Your task to perform on an android device: check battery use Image 0: 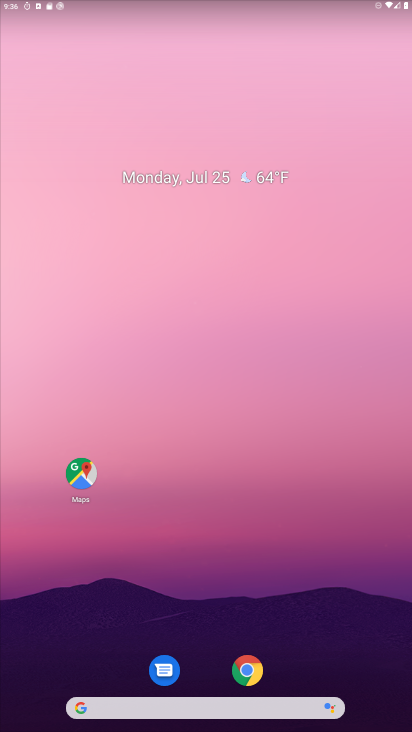
Step 0: drag from (340, 655) to (248, 42)
Your task to perform on an android device: check battery use Image 1: 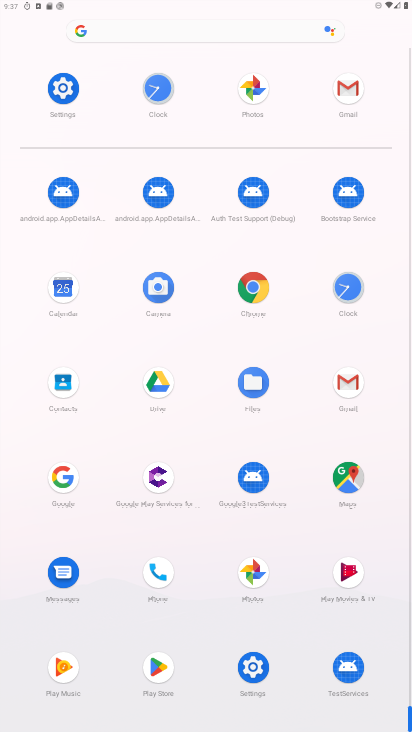
Step 1: click (264, 672)
Your task to perform on an android device: check battery use Image 2: 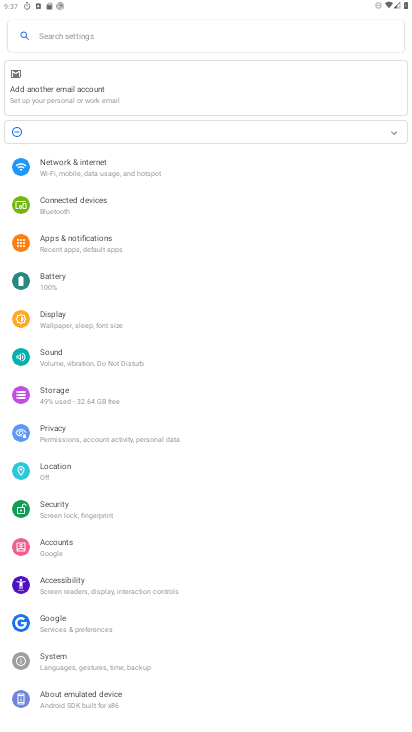
Step 2: click (80, 282)
Your task to perform on an android device: check battery use Image 3: 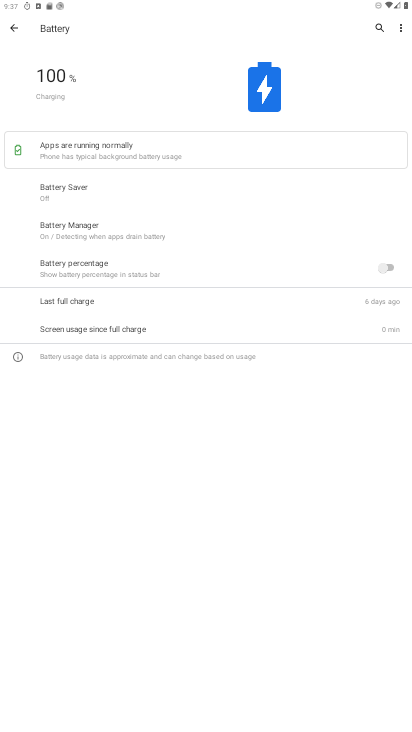
Step 3: click (405, 28)
Your task to perform on an android device: check battery use Image 4: 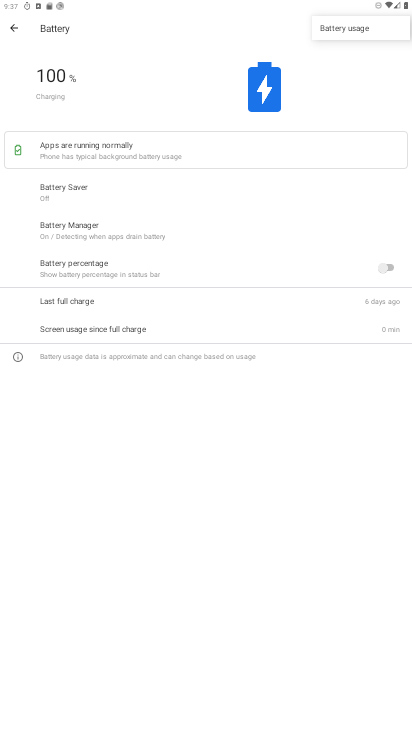
Step 4: click (359, 26)
Your task to perform on an android device: check battery use Image 5: 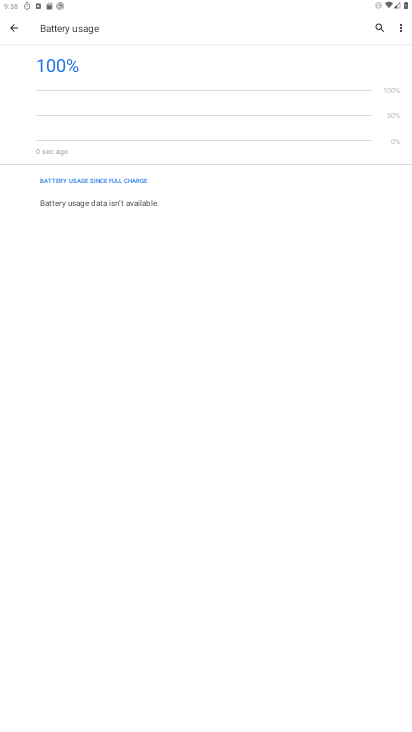
Step 5: task complete